Your task to perform on an android device: turn on location history Image 0: 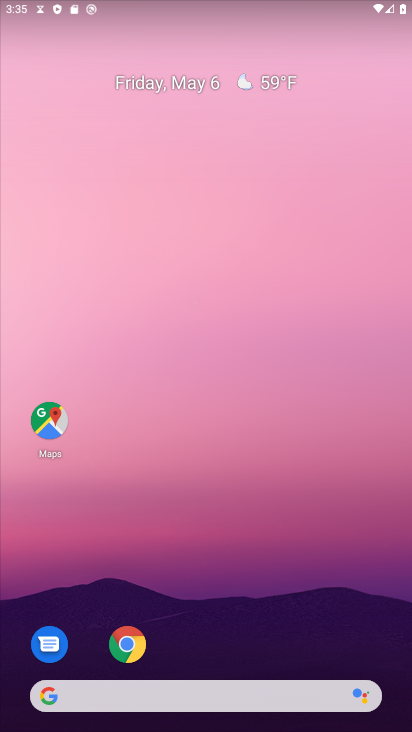
Step 0: drag from (221, 606) to (258, 89)
Your task to perform on an android device: turn on location history Image 1: 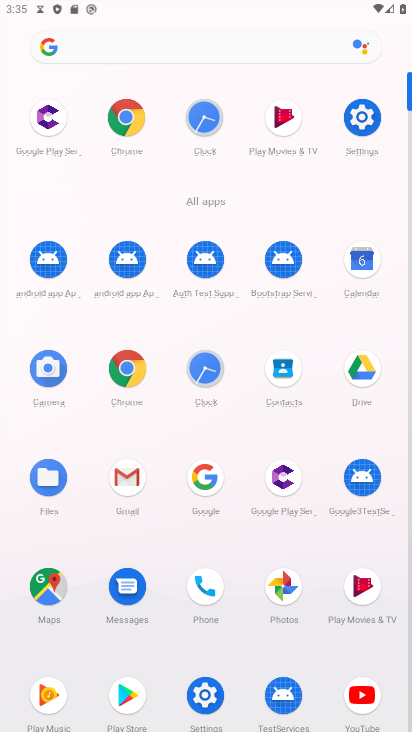
Step 1: click (362, 116)
Your task to perform on an android device: turn on location history Image 2: 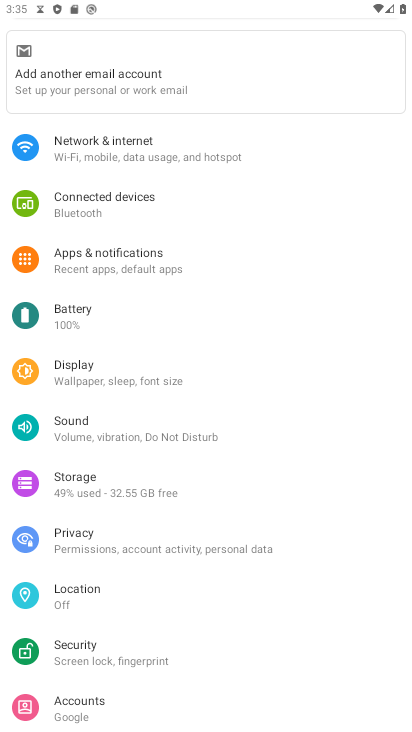
Step 2: drag from (114, 512) to (182, 395)
Your task to perform on an android device: turn on location history Image 3: 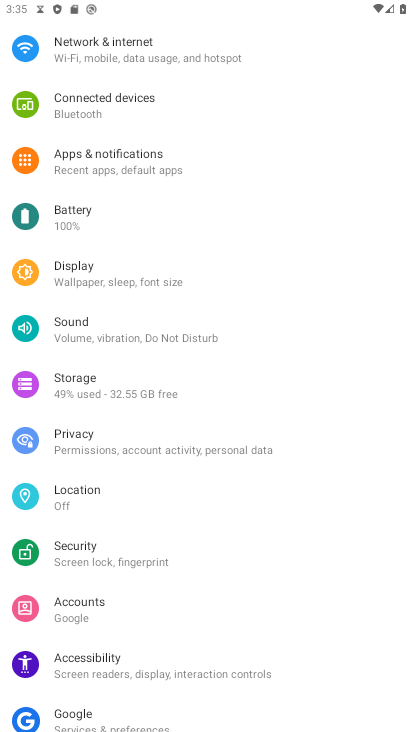
Step 3: click (89, 495)
Your task to perform on an android device: turn on location history Image 4: 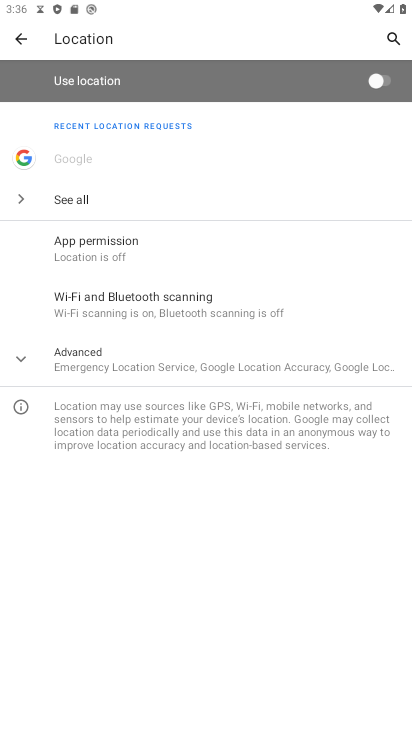
Step 4: click (148, 369)
Your task to perform on an android device: turn on location history Image 5: 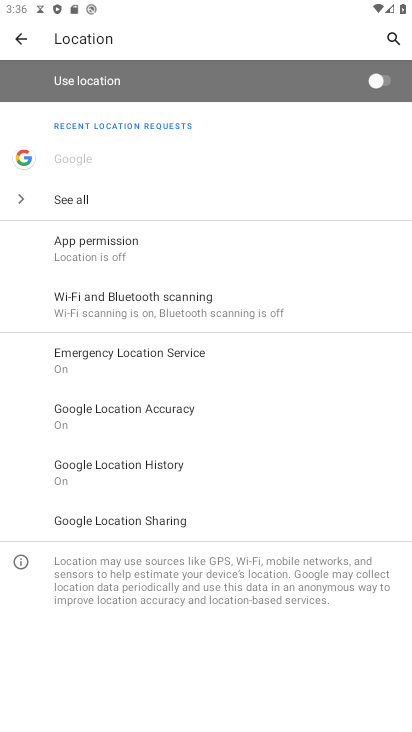
Step 5: task complete